Your task to perform on an android device: Open wifi settings Image 0: 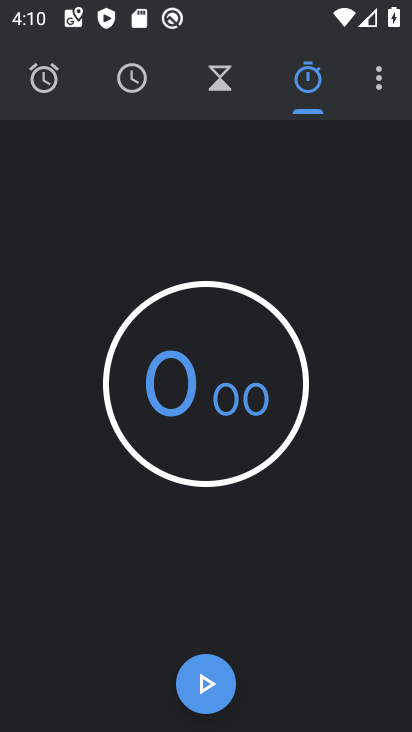
Step 0: press home button
Your task to perform on an android device: Open wifi settings Image 1: 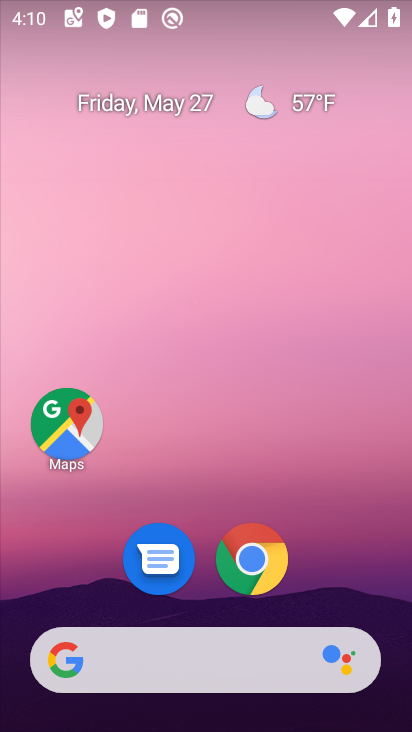
Step 1: drag from (355, 570) to (409, 10)
Your task to perform on an android device: Open wifi settings Image 2: 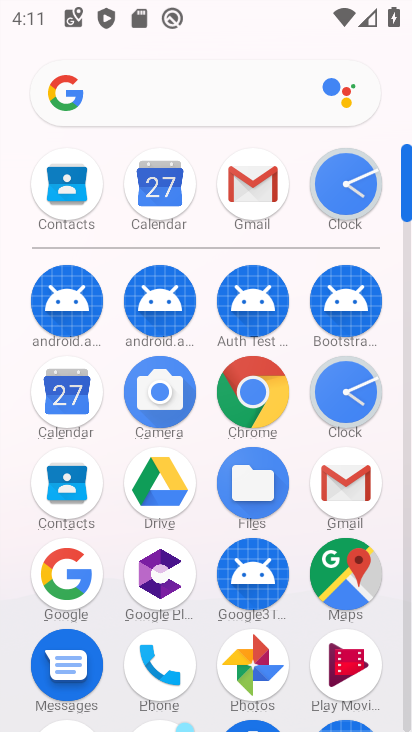
Step 2: click (403, 725)
Your task to perform on an android device: Open wifi settings Image 3: 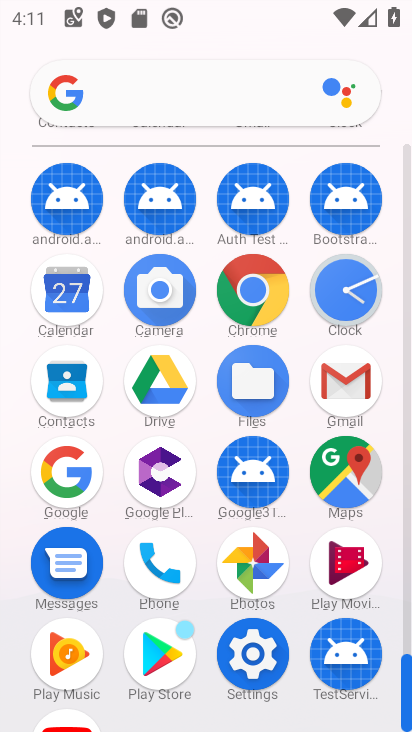
Step 3: click (268, 659)
Your task to perform on an android device: Open wifi settings Image 4: 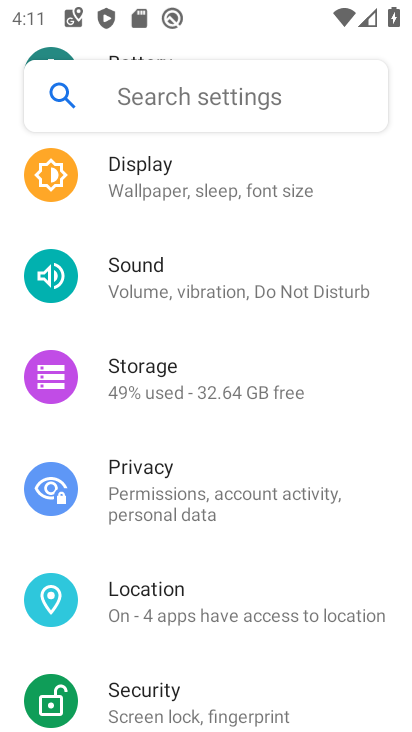
Step 4: drag from (255, 240) to (367, 710)
Your task to perform on an android device: Open wifi settings Image 5: 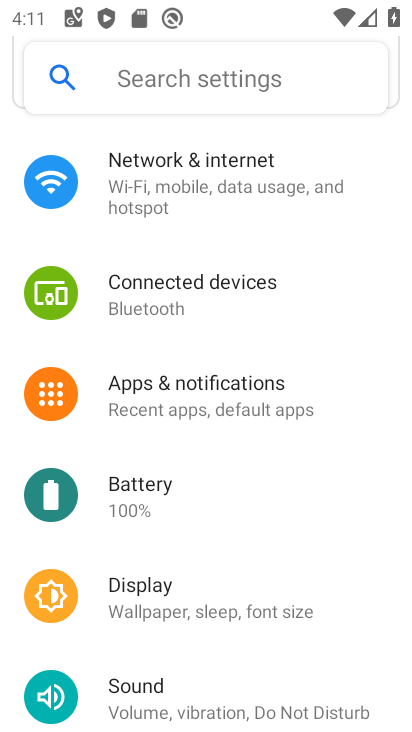
Step 5: click (233, 215)
Your task to perform on an android device: Open wifi settings Image 6: 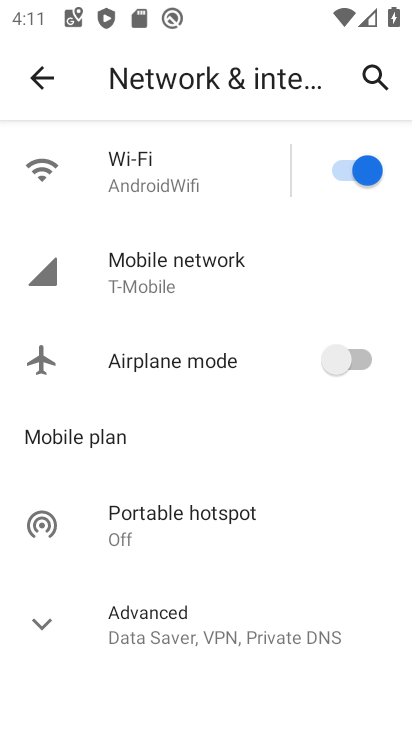
Step 6: task complete